Your task to perform on an android device: choose inbox layout in the gmail app Image 0: 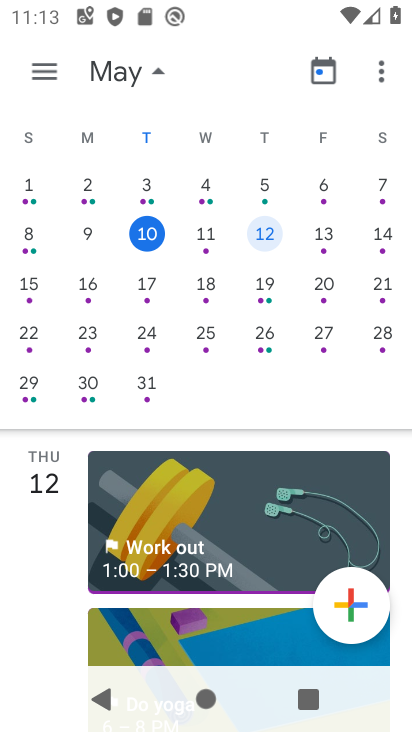
Step 0: press home button
Your task to perform on an android device: choose inbox layout in the gmail app Image 1: 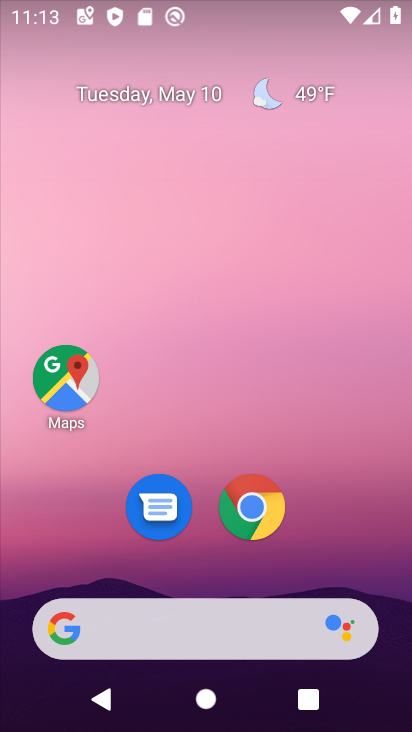
Step 1: drag from (212, 568) to (185, 111)
Your task to perform on an android device: choose inbox layout in the gmail app Image 2: 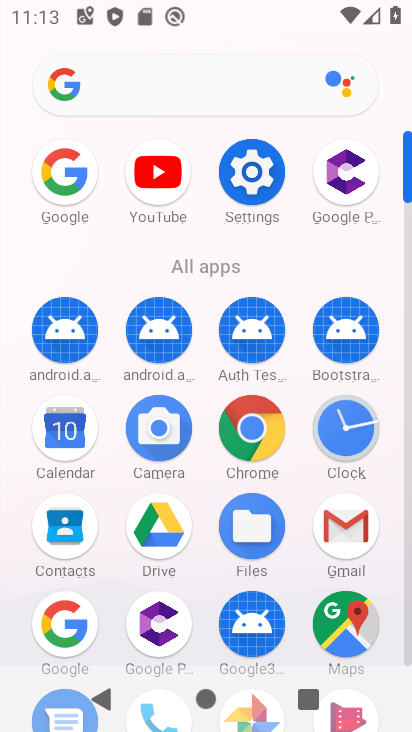
Step 2: click (343, 517)
Your task to perform on an android device: choose inbox layout in the gmail app Image 3: 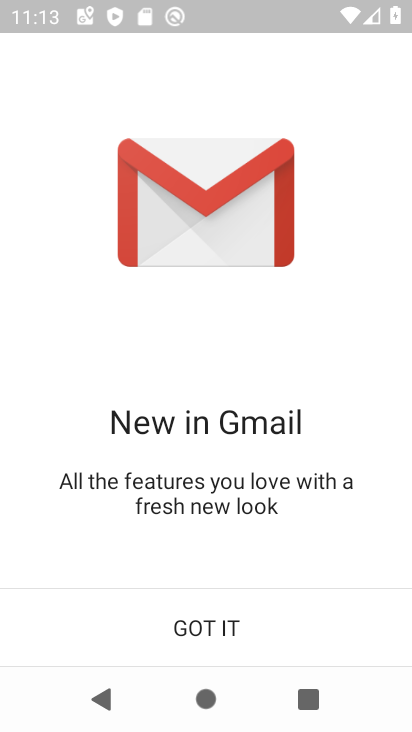
Step 3: click (216, 635)
Your task to perform on an android device: choose inbox layout in the gmail app Image 4: 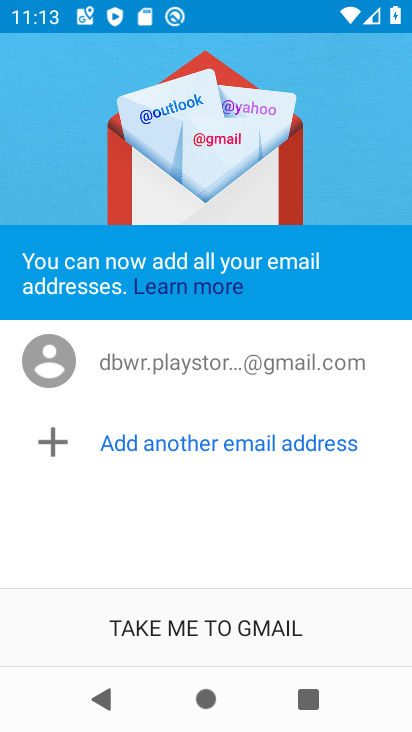
Step 4: click (177, 630)
Your task to perform on an android device: choose inbox layout in the gmail app Image 5: 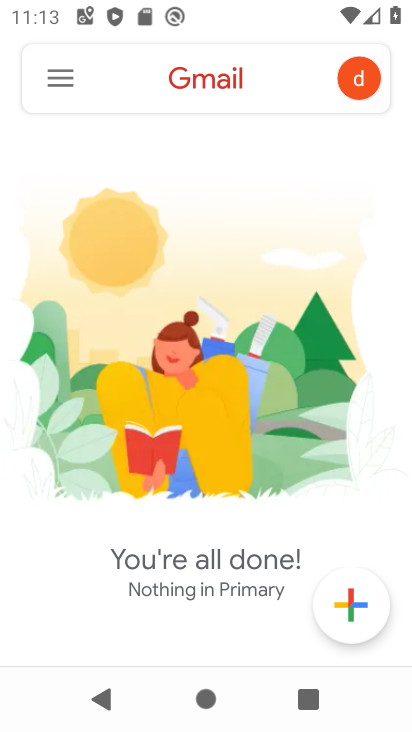
Step 5: click (50, 80)
Your task to perform on an android device: choose inbox layout in the gmail app Image 6: 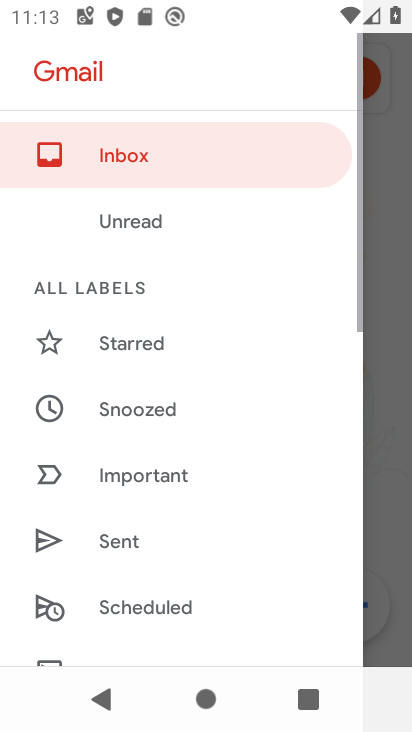
Step 6: drag from (169, 545) to (222, 149)
Your task to perform on an android device: choose inbox layout in the gmail app Image 7: 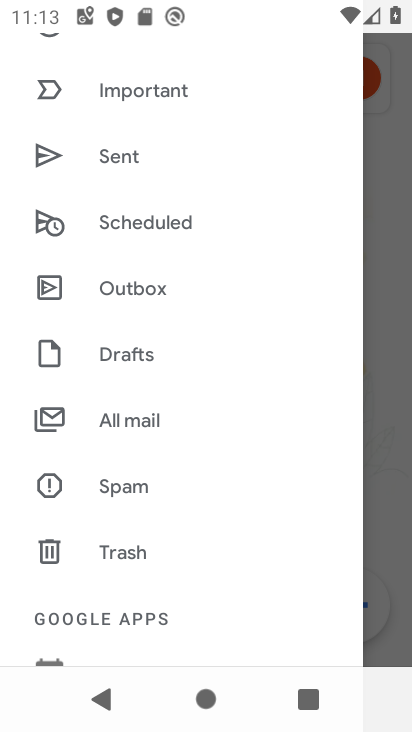
Step 7: drag from (212, 549) to (201, 165)
Your task to perform on an android device: choose inbox layout in the gmail app Image 8: 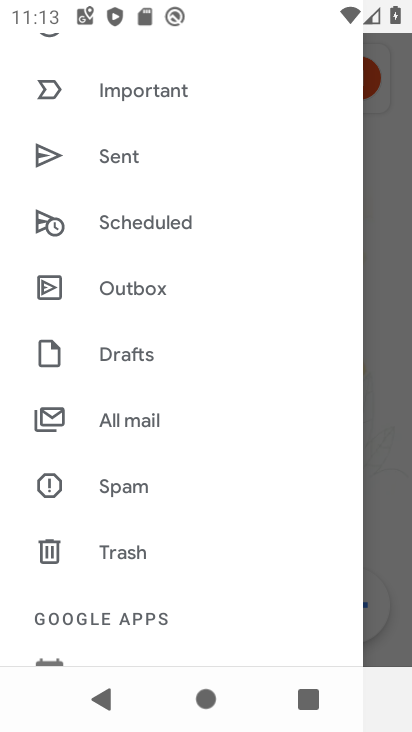
Step 8: drag from (122, 606) to (187, 200)
Your task to perform on an android device: choose inbox layout in the gmail app Image 9: 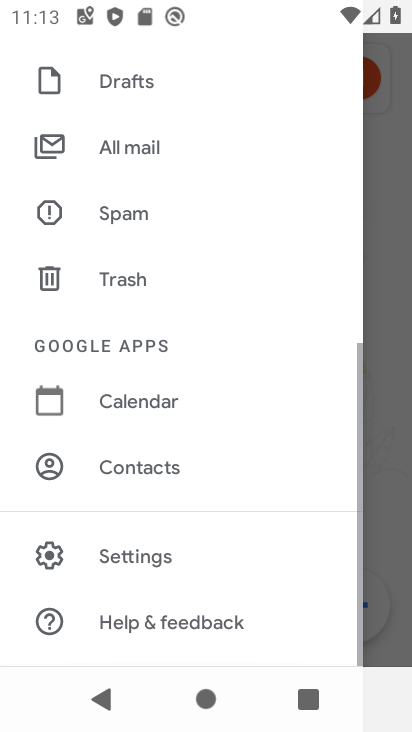
Step 9: click (143, 558)
Your task to perform on an android device: choose inbox layout in the gmail app Image 10: 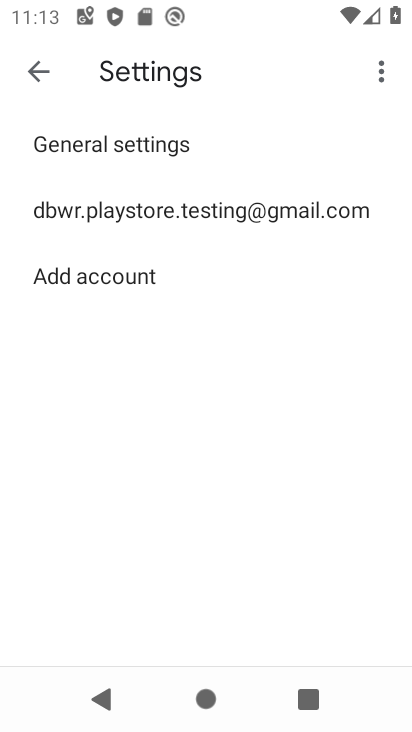
Step 10: click (126, 201)
Your task to perform on an android device: choose inbox layout in the gmail app Image 11: 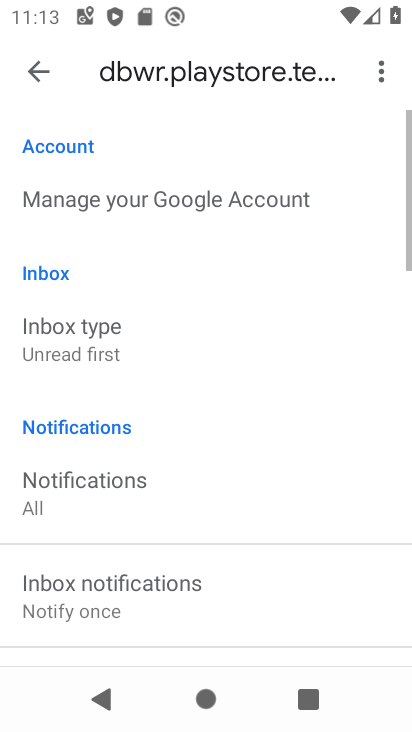
Step 11: click (120, 339)
Your task to perform on an android device: choose inbox layout in the gmail app Image 12: 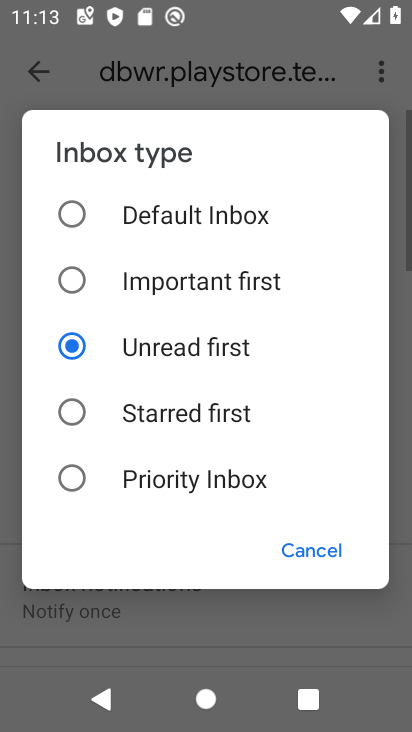
Step 12: click (78, 278)
Your task to perform on an android device: choose inbox layout in the gmail app Image 13: 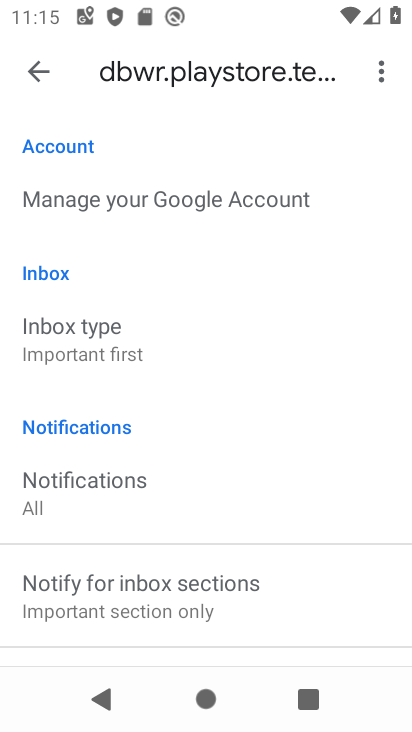
Step 13: task complete